Your task to perform on an android device: Open the map Image 0: 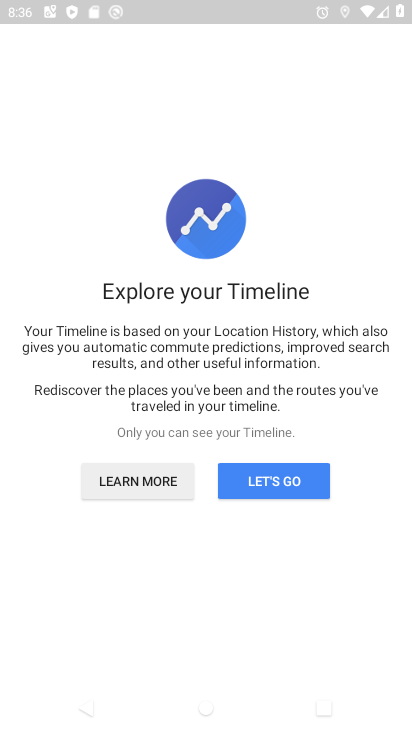
Step 0: press home button
Your task to perform on an android device: Open the map Image 1: 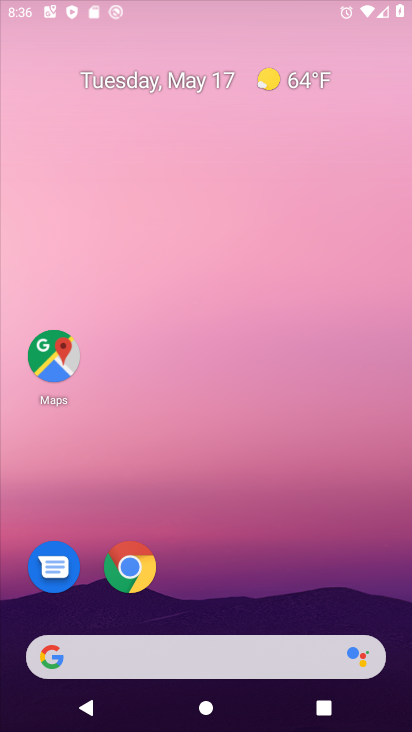
Step 1: drag from (368, 594) to (222, 76)
Your task to perform on an android device: Open the map Image 2: 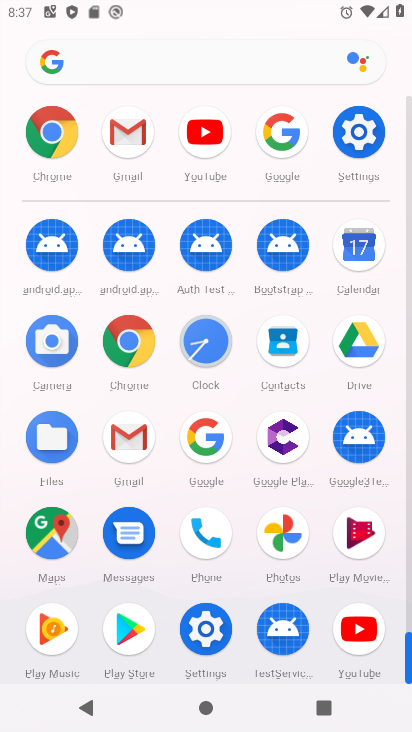
Step 2: click (46, 539)
Your task to perform on an android device: Open the map Image 3: 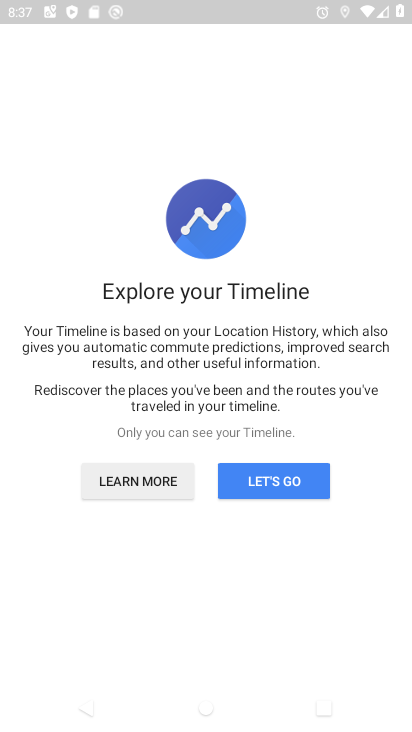
Step 3: task complete